Your task to perform on an android device: Open calendar and show me the fourth week of next month Image 0: 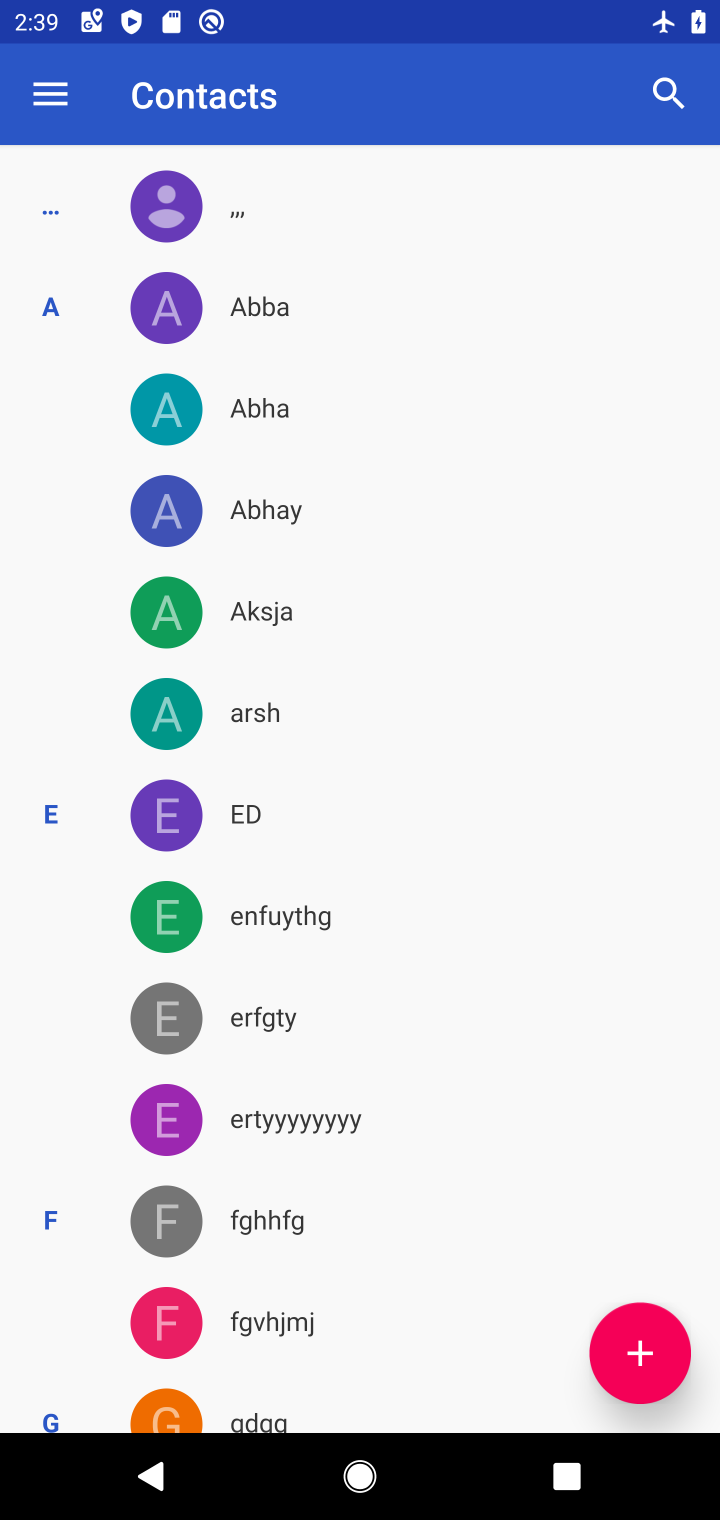
Step 0: press home button
Your task to perform on an android device: Open calendar and show me the fourth week of next month Image 1: 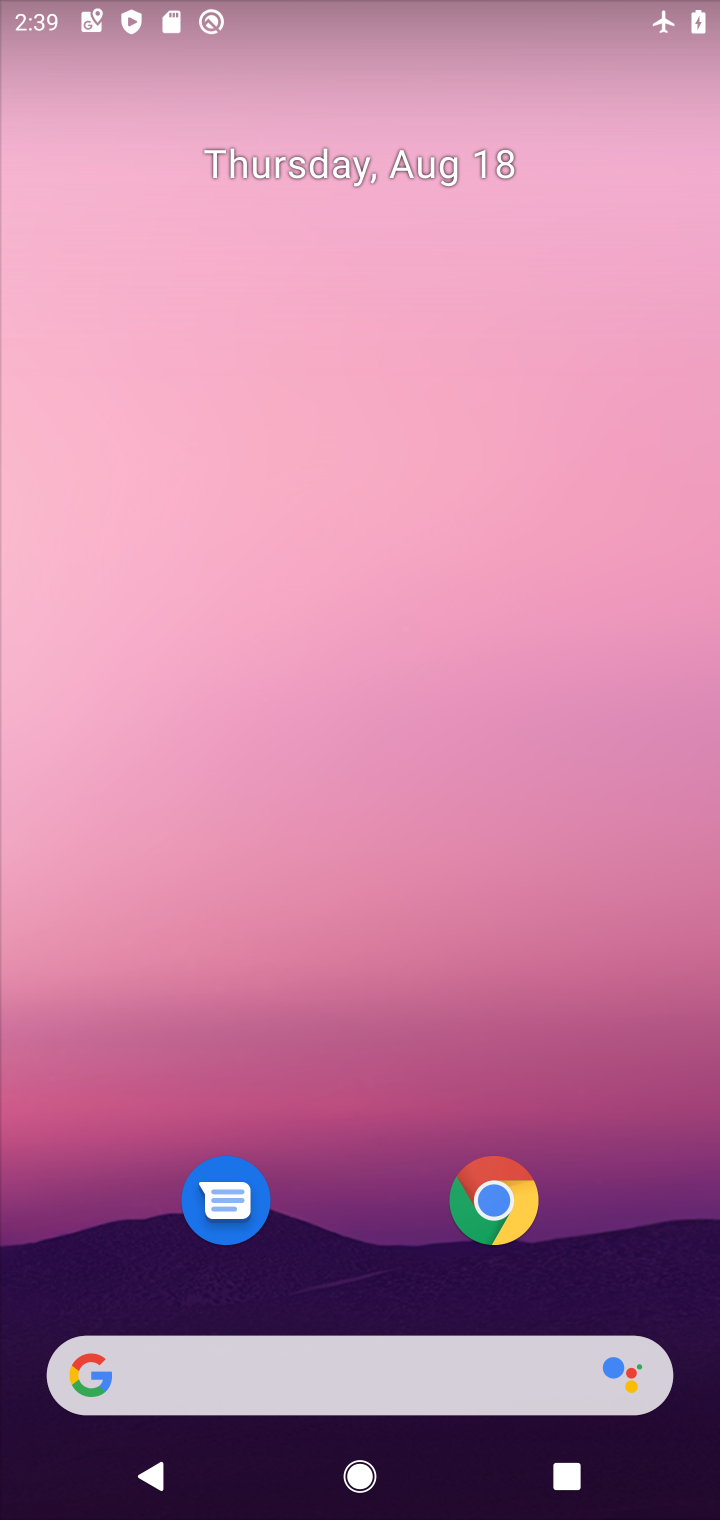
Step 1: drag from (379, 1195) to (513, 0)
Your task to perform on an android device: Open calendar and show me the fourth week of next month Image 2: 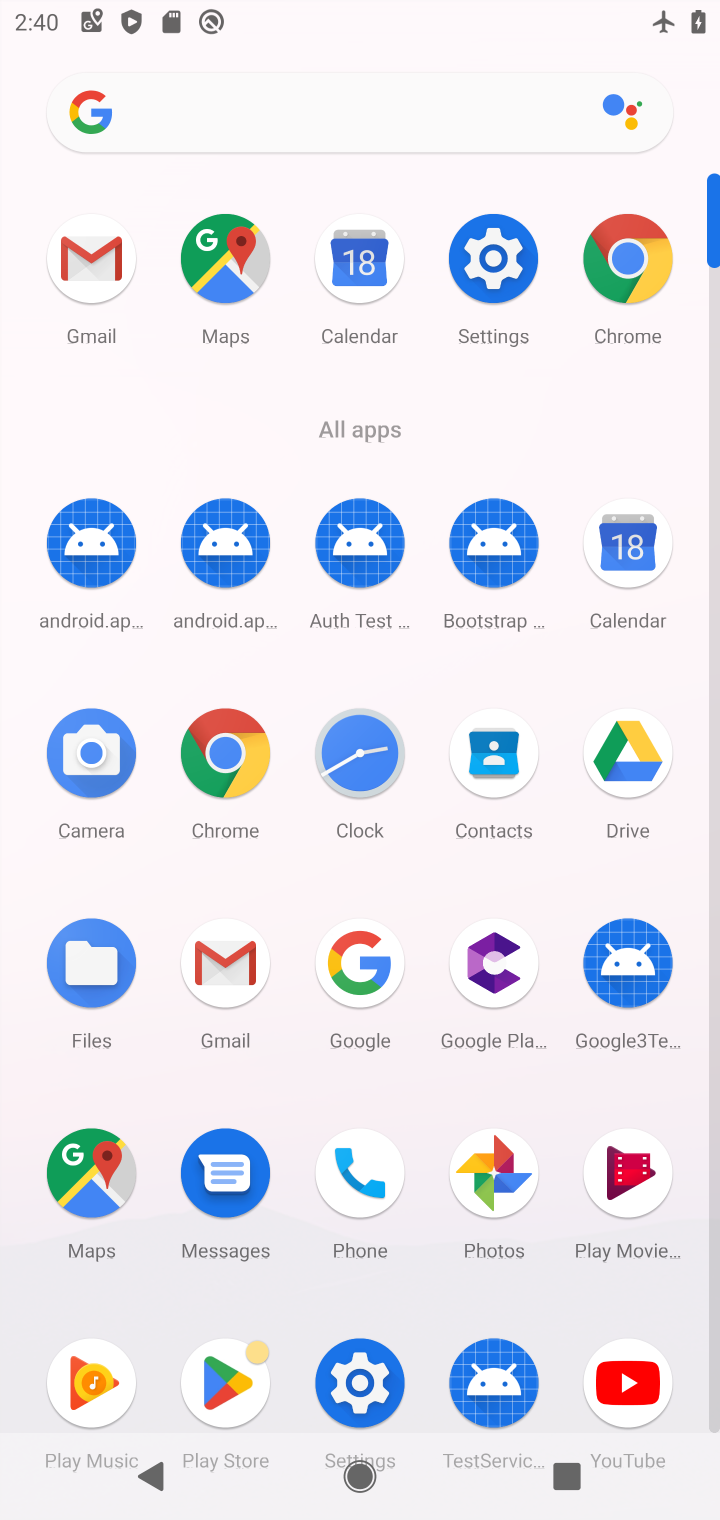
Step 2: click (649, 541)
Your task to perform on an android device: Open calendar and show me the fourth week of next month Image 3: 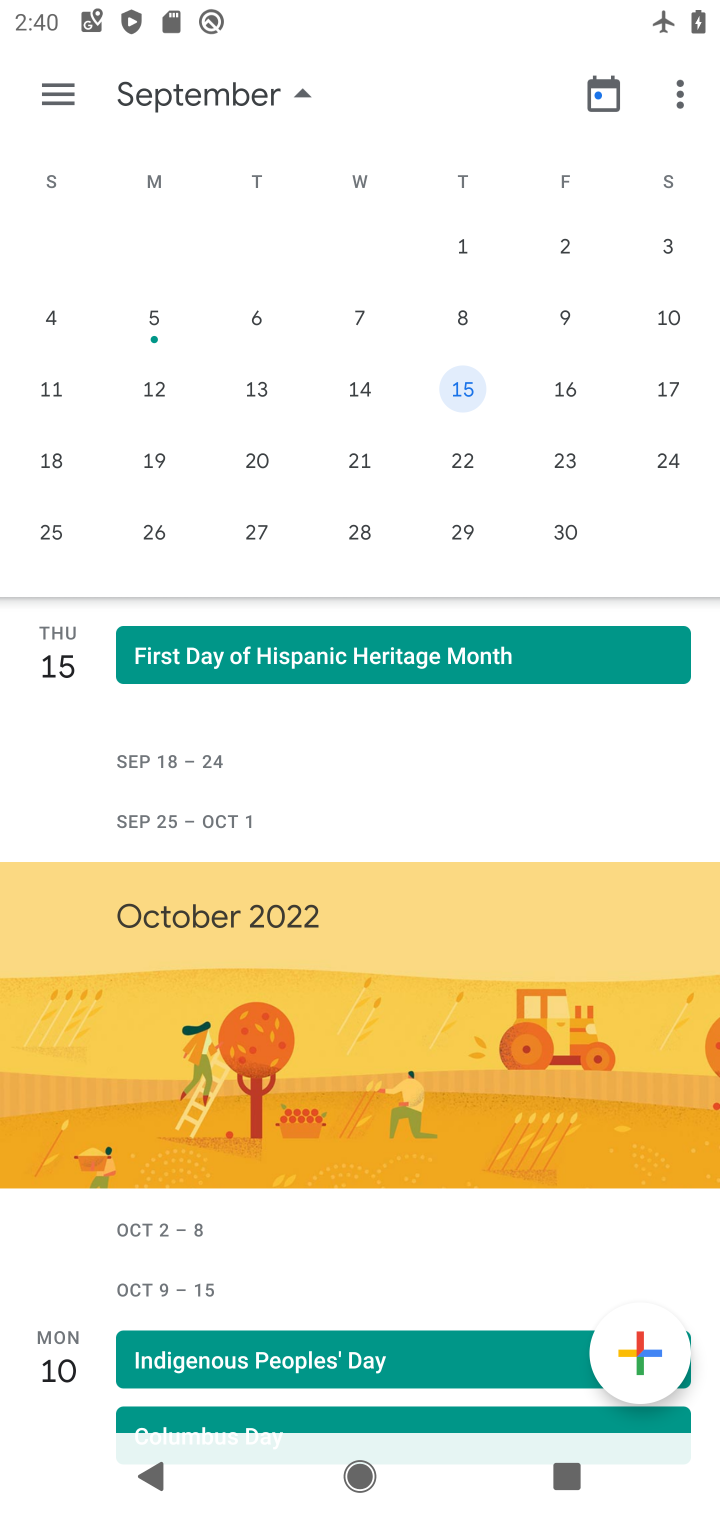
Step 3: click (355, 511)
Your task to perform on an android device: Open calendar and show me the fourth week of next month Image 4: 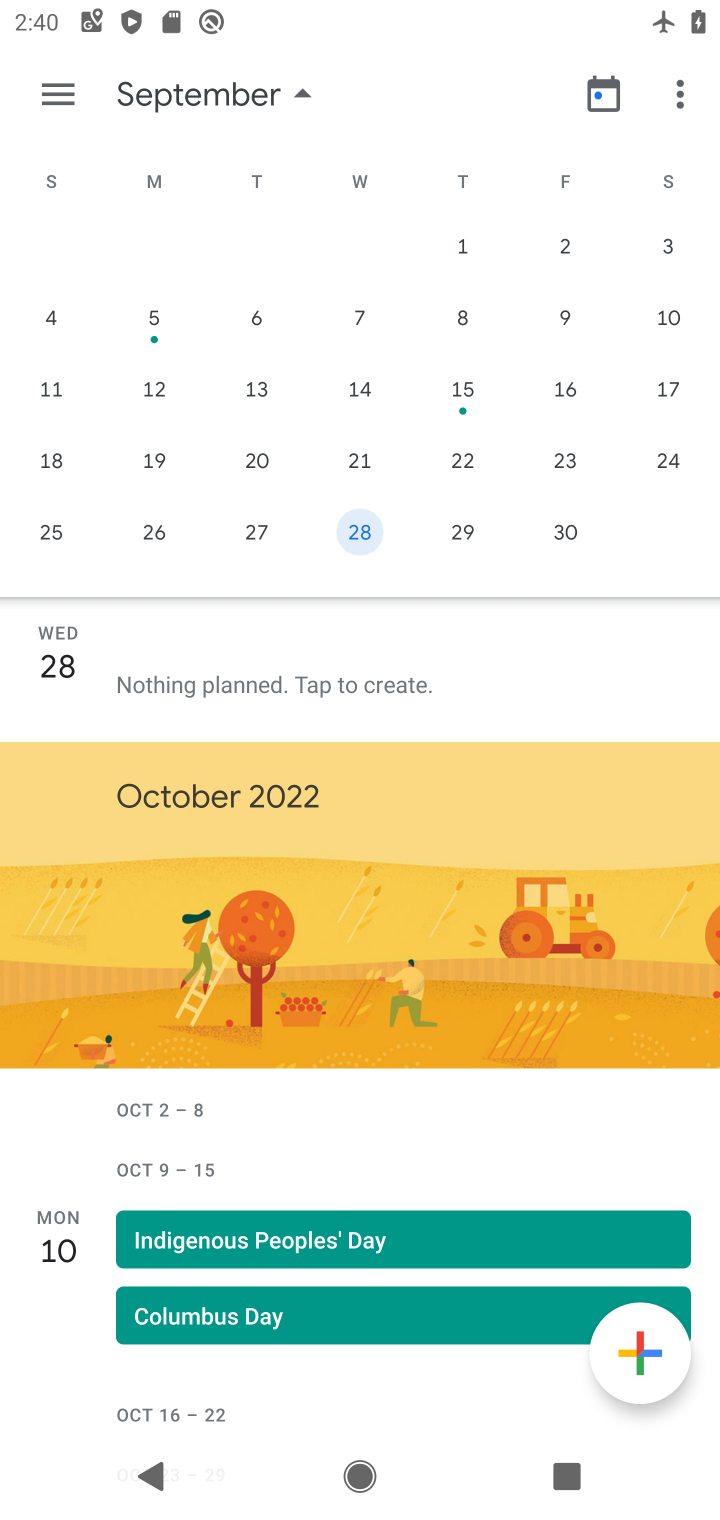
Step 4: task complete